Your task to perform on an android device: Is it going to rain this weekend? Image 0: 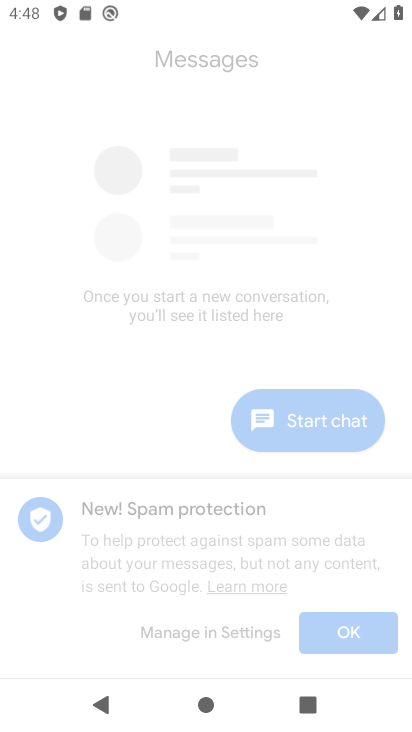
Step 0: click (58, 326)
Your task to perform on an android device: Is it going to rain this weekend? Image 1: 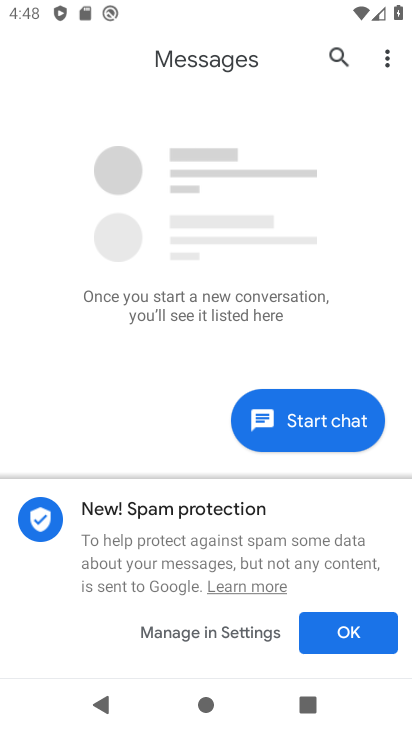
Step 1: press home button
Your task to perform on an android device: Is it going to rain this weekend? Image 2: 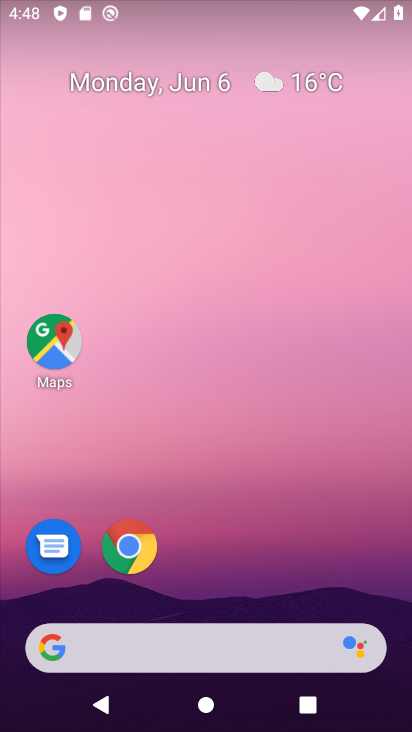
Step 2: drag from (161, 568) to (148, 272)
Your task to perform on an android device: Is it going to rain this weekend? Image 3: 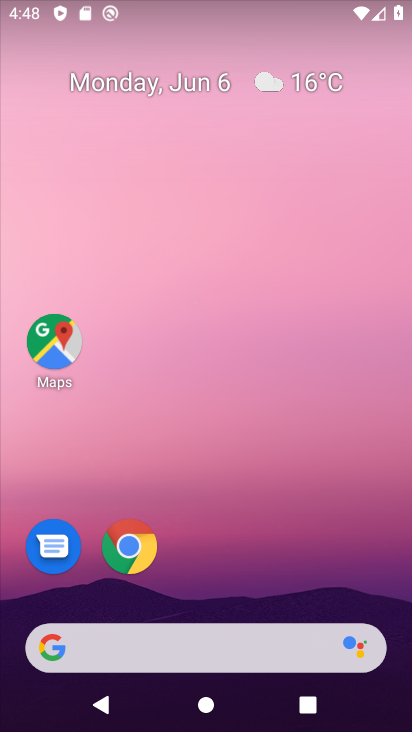
Step 3: drag from (216, 587) to (225, 95)
Your task to perform on an android device: Is it going to rain this weekend? Image 4: 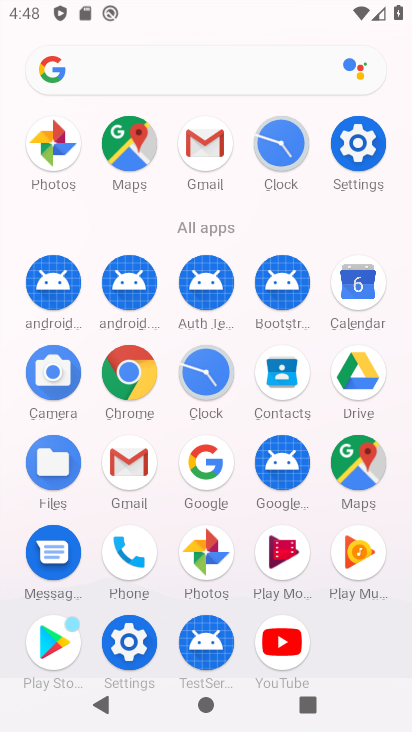
Step 4: click (204, 459)
Your task to perform on an android device: Is it going to rain this weekend? Image 5: 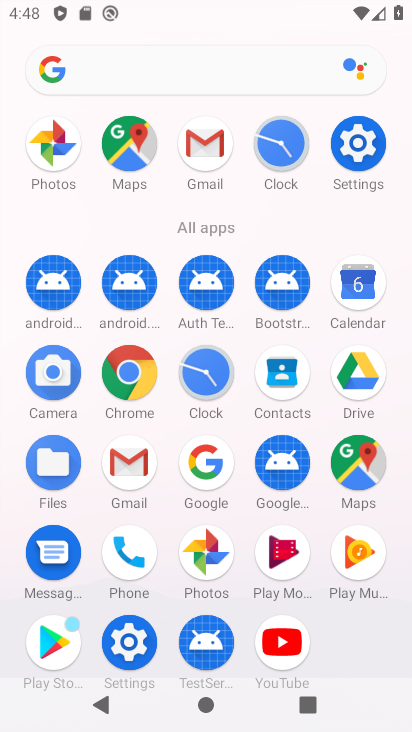
Step 5: click (201, 475)
Your task to perform on an android device: Is it going to rain this weekend? Image 6: 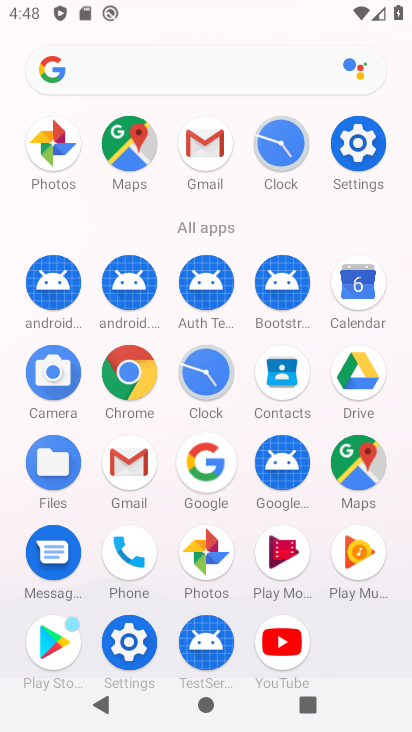
Step 6: click (202, 454)
Your task to perform on an android device: Is it going to rain this weekend? Image 7: 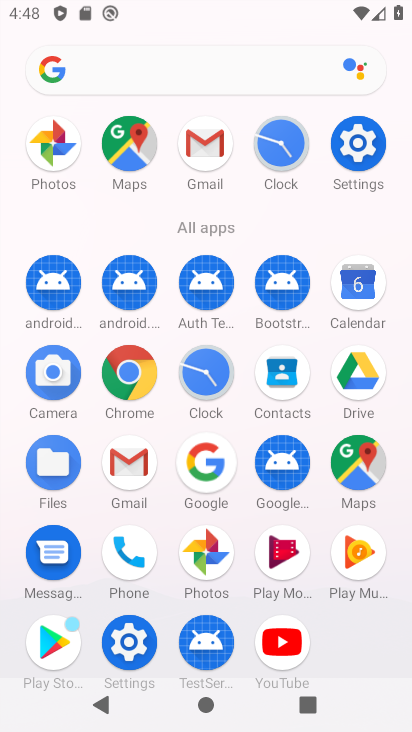
Step 7: click (211, 463)
Your task to perform on an android device: Is it going to rain this weekend? Image 8: 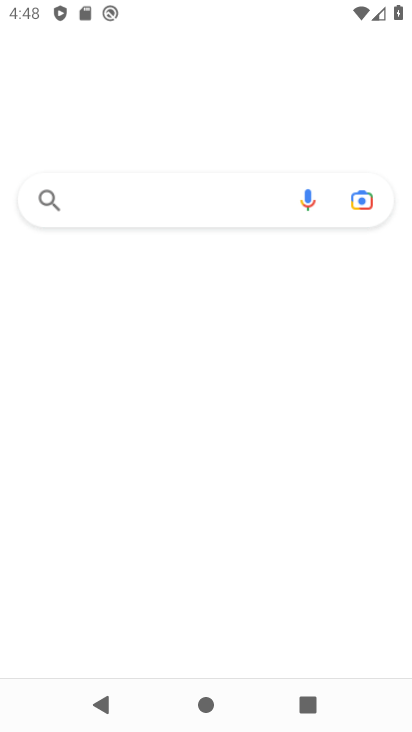
Step 8: click (161, 211)
Your task to perform on an android device: Is it going to rain this weekend? Image 9: 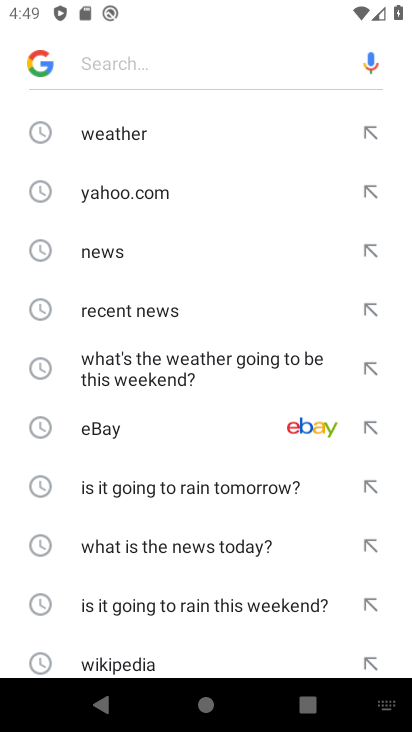
Step 9: click (183, 597)
Your task to perform on an android device: Is it going to rain this weekend? Image 10: 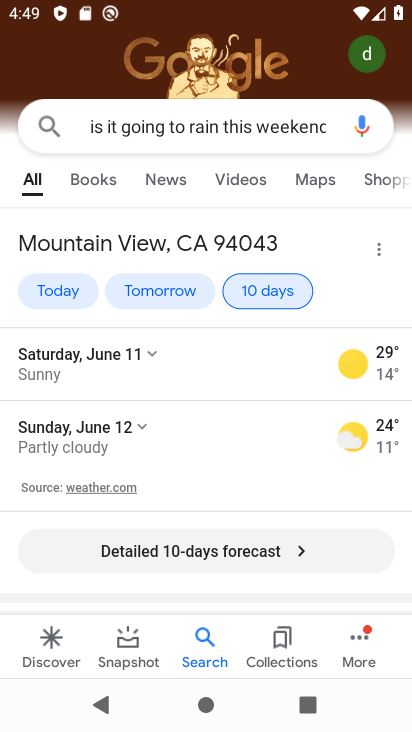
Step 10: click (234, 553)
Your task to perform on an android device: Is it going to rain this weekend? Image 11: 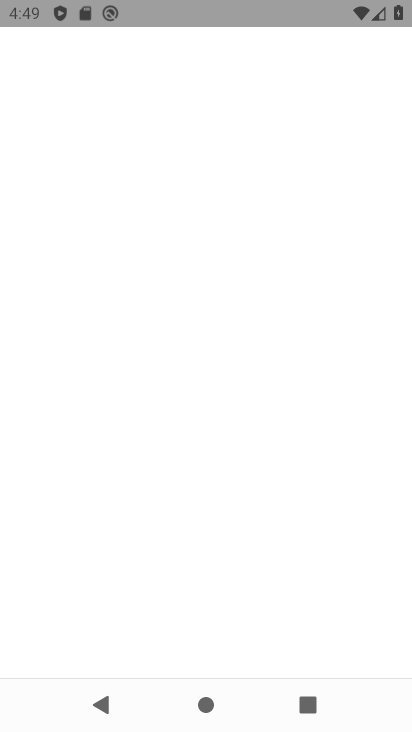
Step 11: task complete